Your task to perform on an android device: Do I have any events this weekend? Image 0: 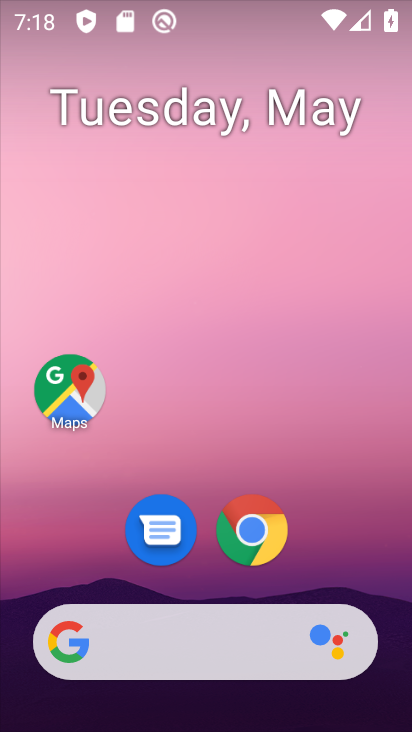
Step 0: drag from (141, 731) to (194, 42)
Your task to perform on an android device: Do I have any events this weekend? Image 1: 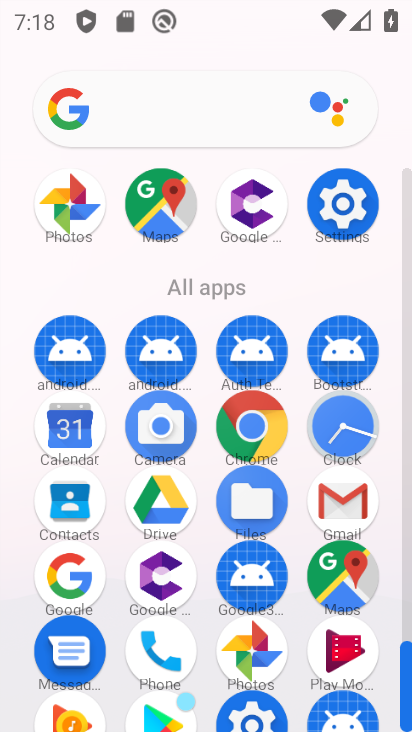
Step 1: click (80, 444)
Your task to perform on an android device: Do I have any events this weekend? Image 2: 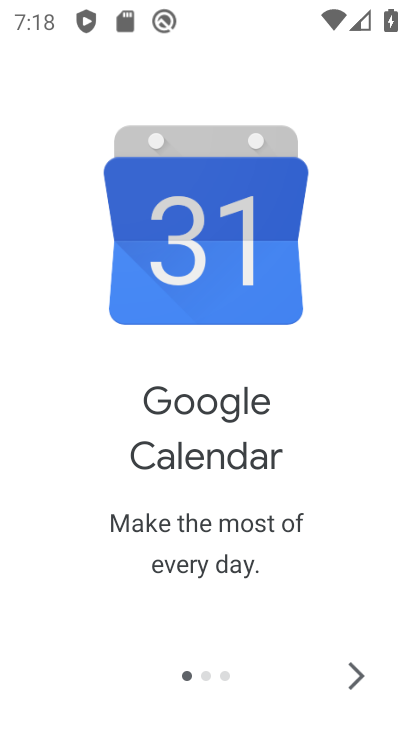
Step 2: click (365, 674)
Your task to perform on an android device: Do I have any events this weekend? Image 3: 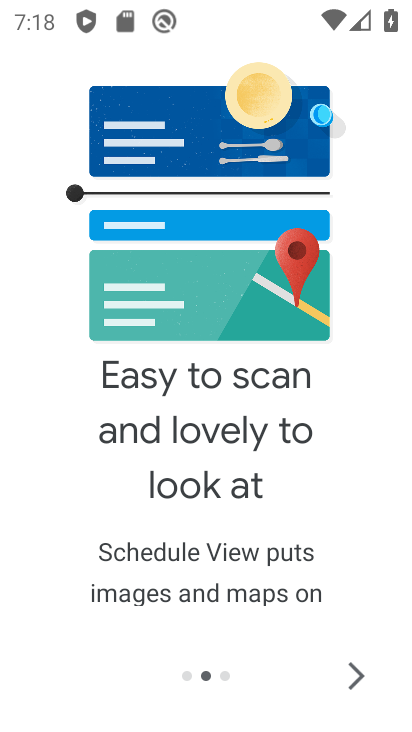
Step 3: click (367, 673)
Your task to perform on an android device: Do I have any events this weekend? Image 4: 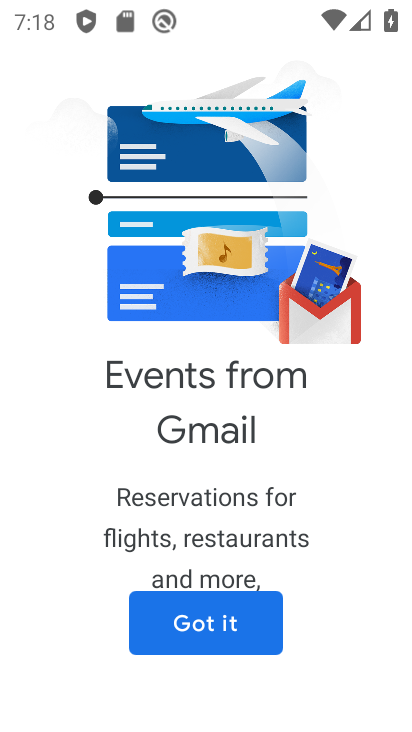
Step 4: click (241, 617)
Your task to perform on an android device: Do I have any events this weekend? Image 5: 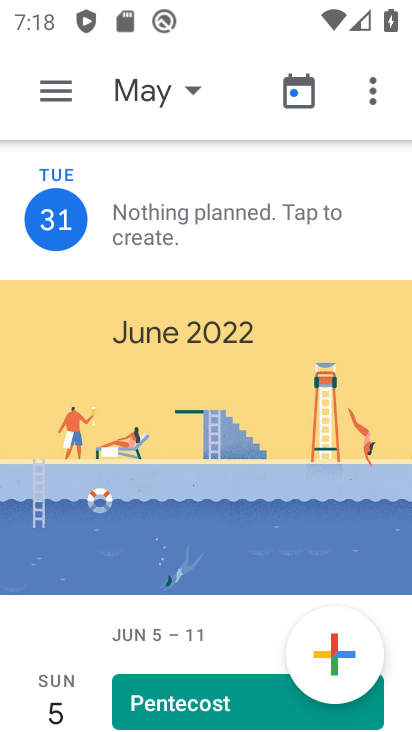
Step 5: click (62, 93)
Your task to perform on an android device: Do I have any events this weekend? Image 6: 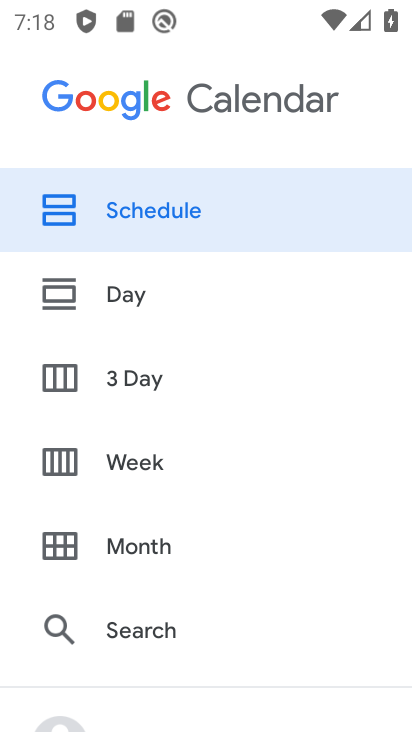
Step 6: drag from (225, 663) to (266, 295)
Your task to perform on an android device: Do I have any events this weekend? Image 7: 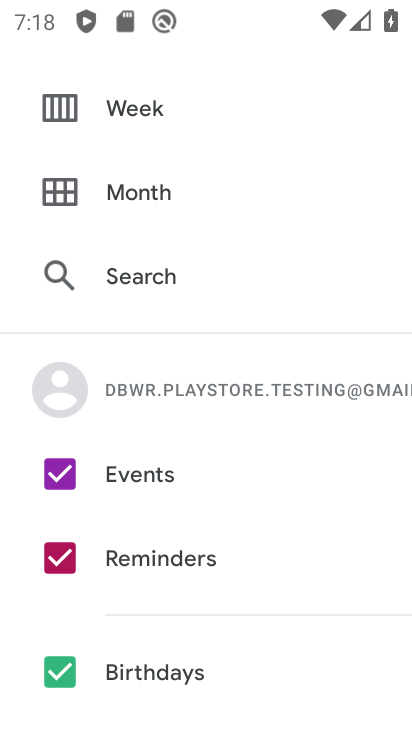
Step 7: click (54, 562)
Your task to perform on an android device: Do I have any events this weekend? Image 8: 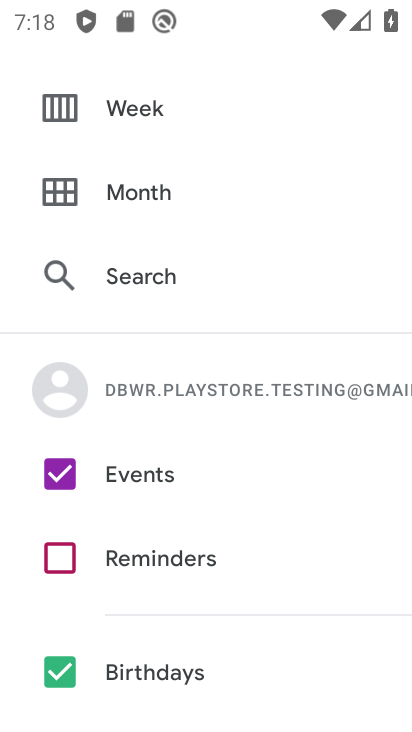
Step 8: click (56, 686)
Your task to perform on an android device: Do I have any events this weekend? Image 9: 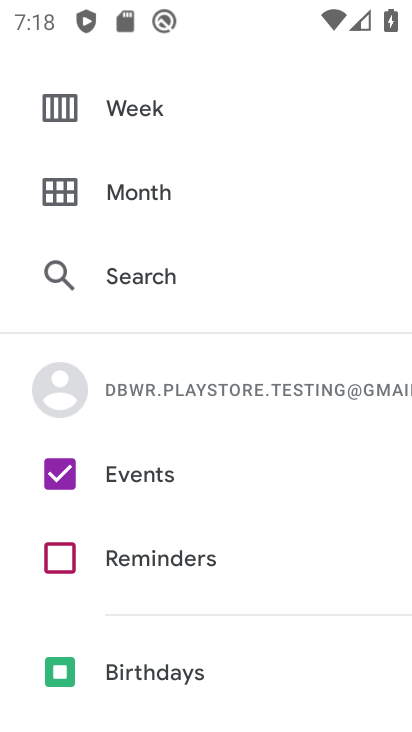
Step 9: drag from (226, 688) to (214, 364)
Your task to perform on an android device: Do I have any events this weekend? Image 10: 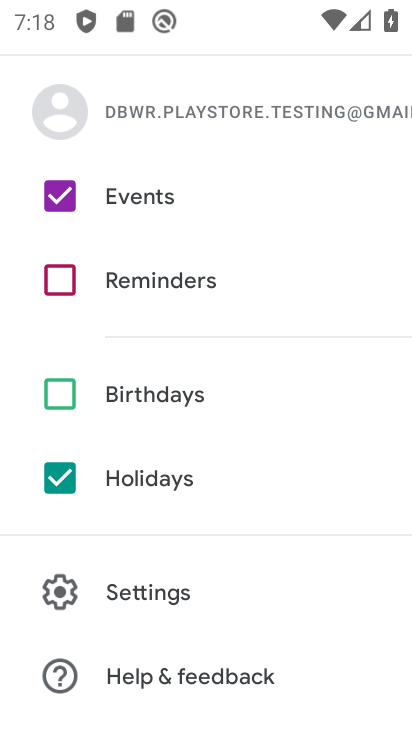
Step 10: click (62, 470)
Your task to perform on an android device: Do I have any events this weekend? Image 11: 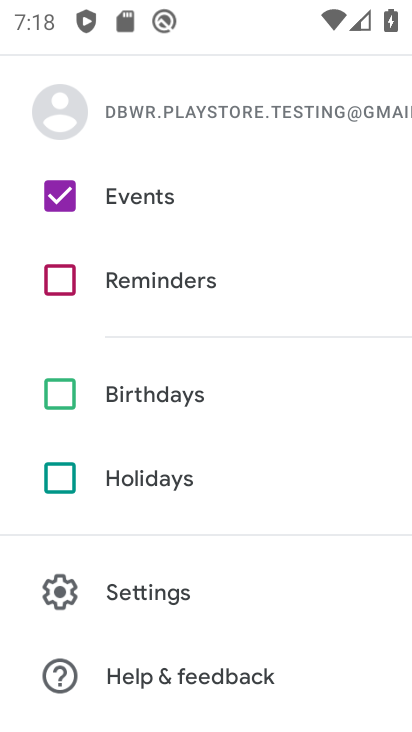
Step 11: drag from (256, 201) to (299, 725)
Your task to perform on an android device: Do I have any events this weekend? Image 12: 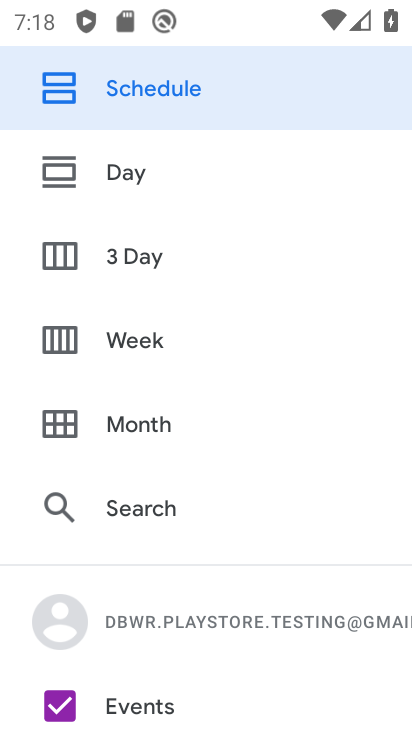
Step 12: click (139, 266)
Your task to perform on an android device: Do I have any events this weekend? Image 13: 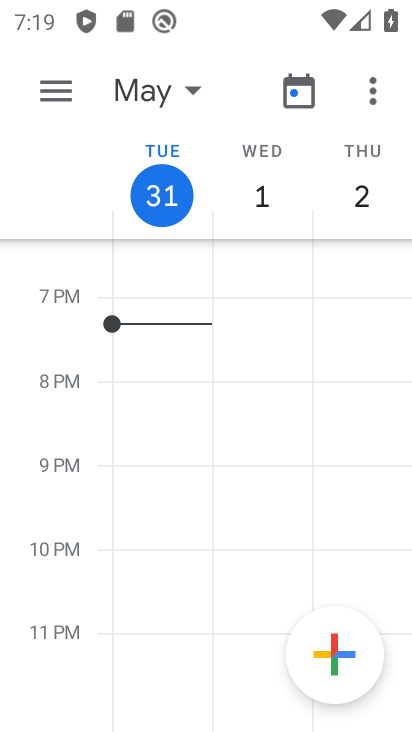
Step 13: drag from (378, 209) to (56, 207)
Your task to perform on an android device: Do I have any events this weekend? Image 14: 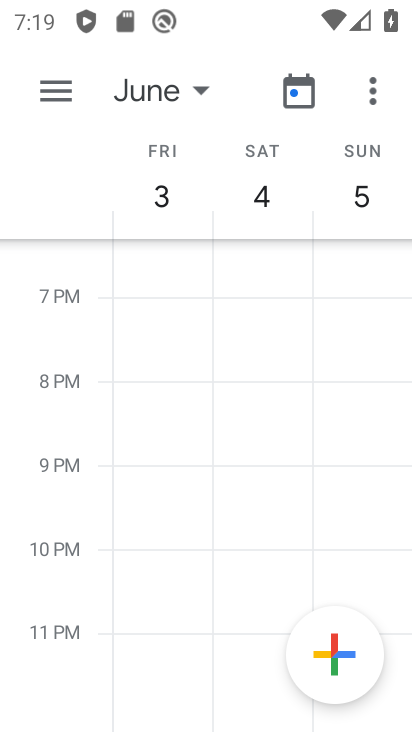
Step 14: drag from (323, 527) to (330, 319)
Your task to perform on an android device: Do I have any events this weekend? Image 15: 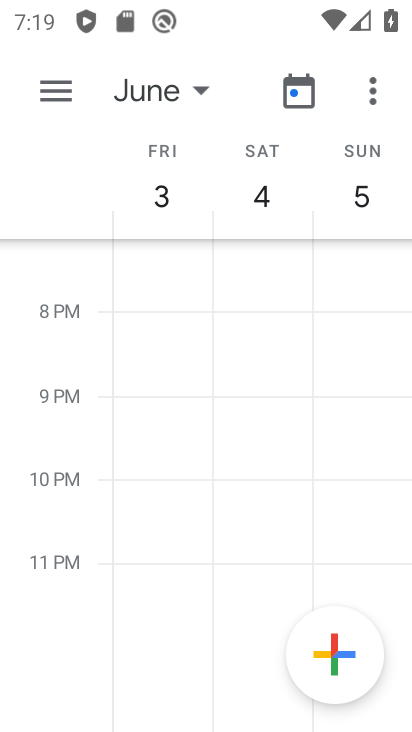
Step 15: drag from (264, 555) to (320, 278)
Your task to perform on an android device: Do I have any events this weekend? Image 16: 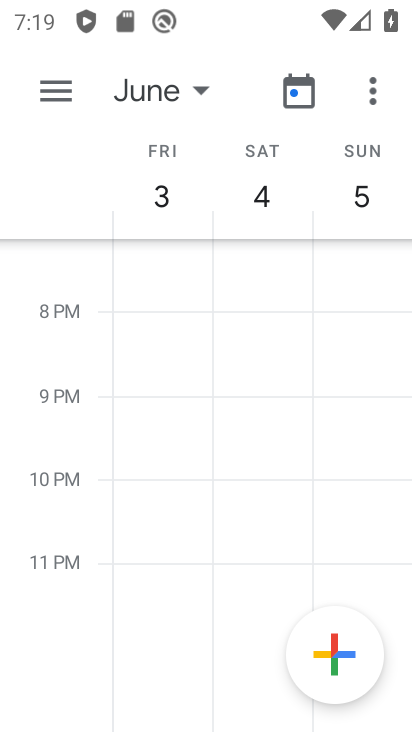
Step 16: drag from (315, 566) to (250, 544)
Your task to perform on an android device: Do I have any events this weekend? Image 17: 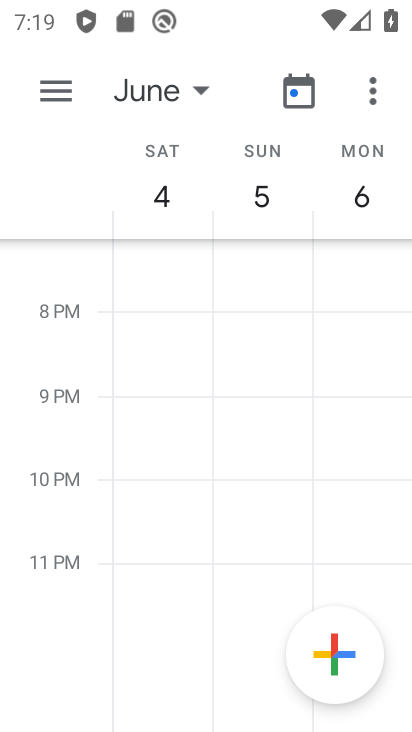
Step 17: drag from (339, 566) to (364, 265)
Your task to perform on an android device: Do I have any events this weekend? Image 18: 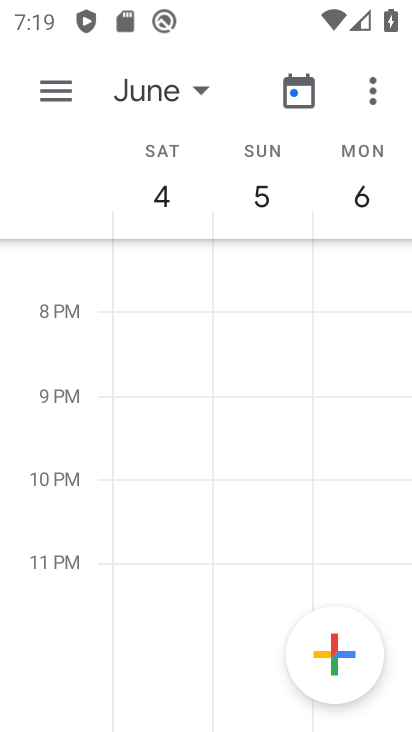
Step 18: click (261, 595)
Your task to perform on an android device: Do I have any events this weekend? Image 19: 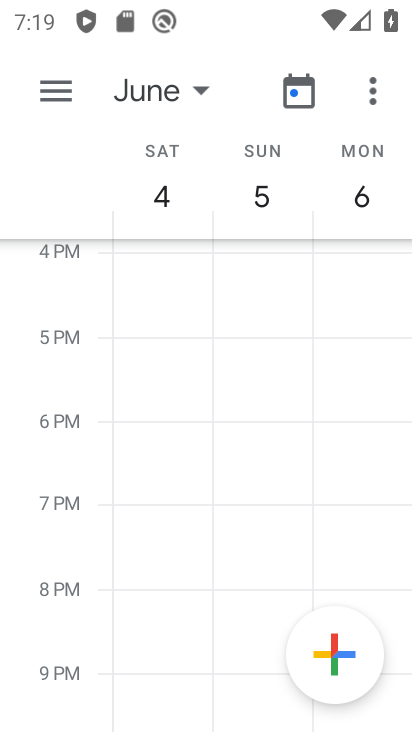
Step 19: task complete